Your task to perform on an android device: Add razer kraken to the cart on walmart, then select checkout. Image 0: 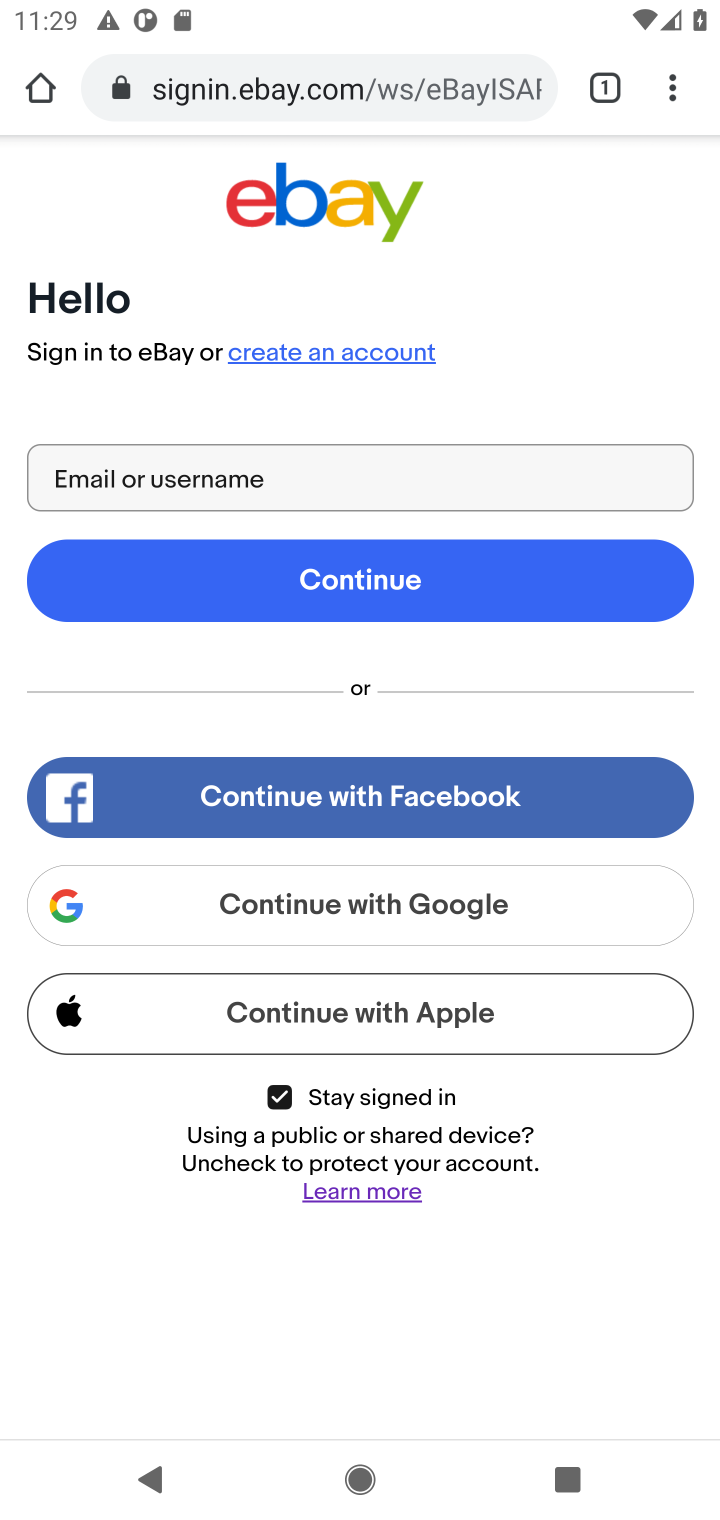
Step 0: press home button
Your task to perform on an android device: Add razer kraken to the cart on walmart, then select checkout. Image 1: 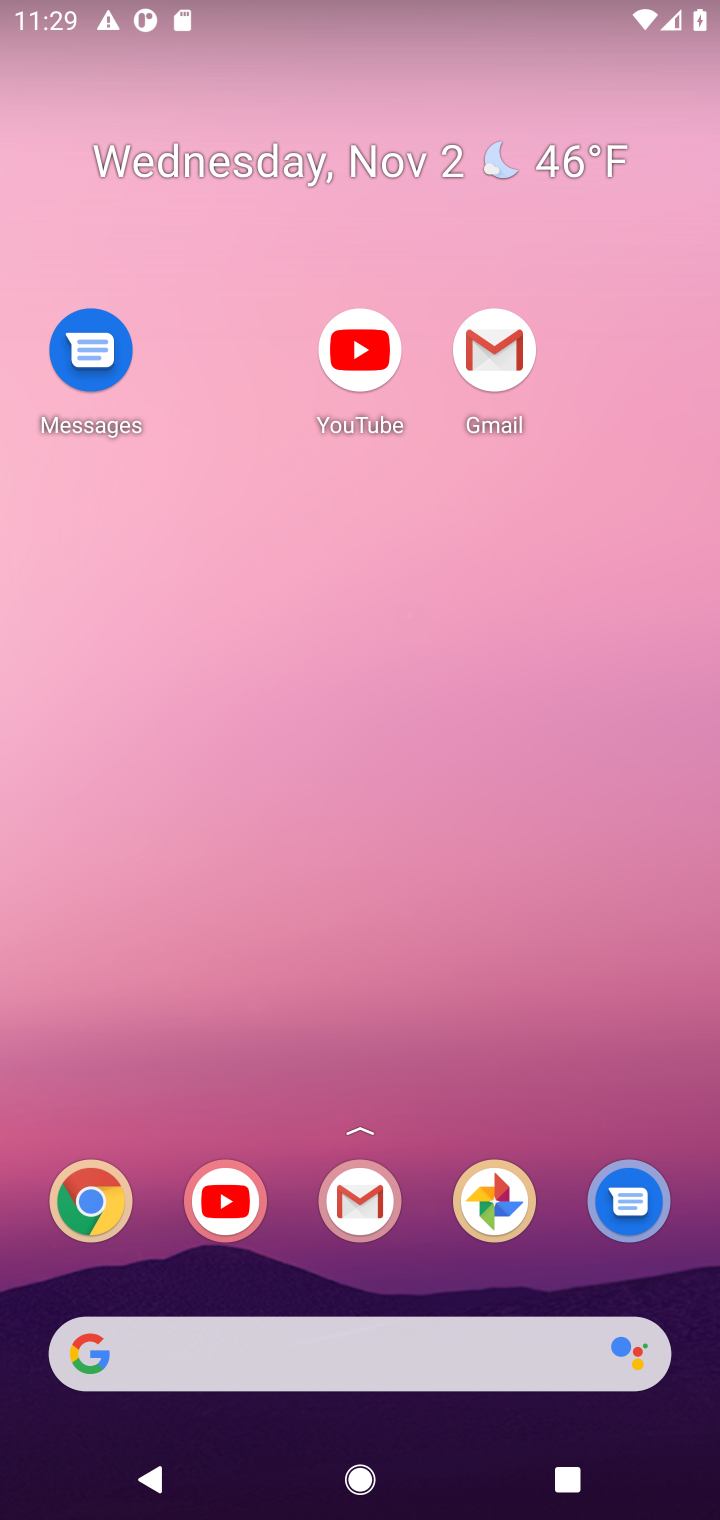
Step 1: drag from (411, 1307) to (464, 230)
Your task to perform on an android device: Add razer kraken to the cart on walmart, then select checkout. Image 2: 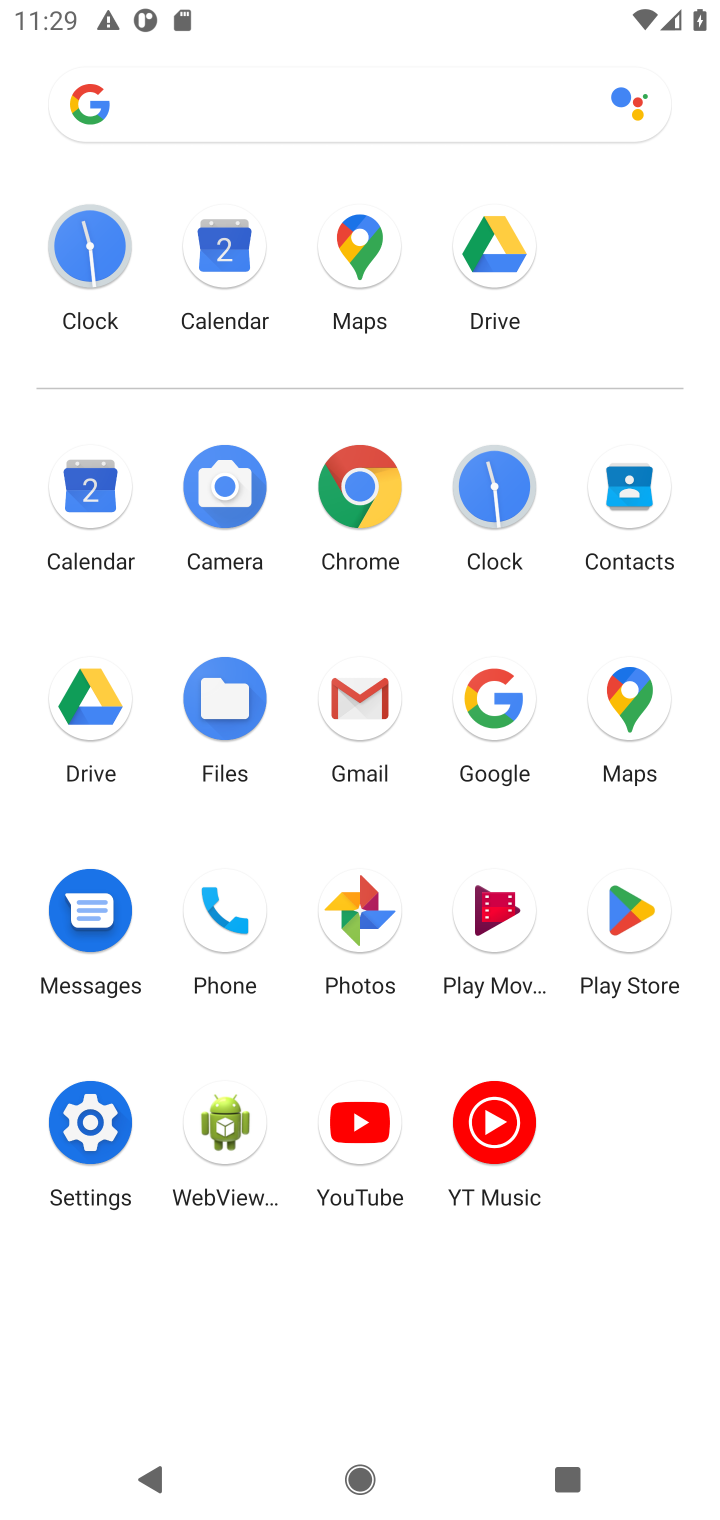
Step 2: click (366, 490)
Your task to perform on an android device: Add razer kraken to the cart on walmart, then select checkout. Image 3: 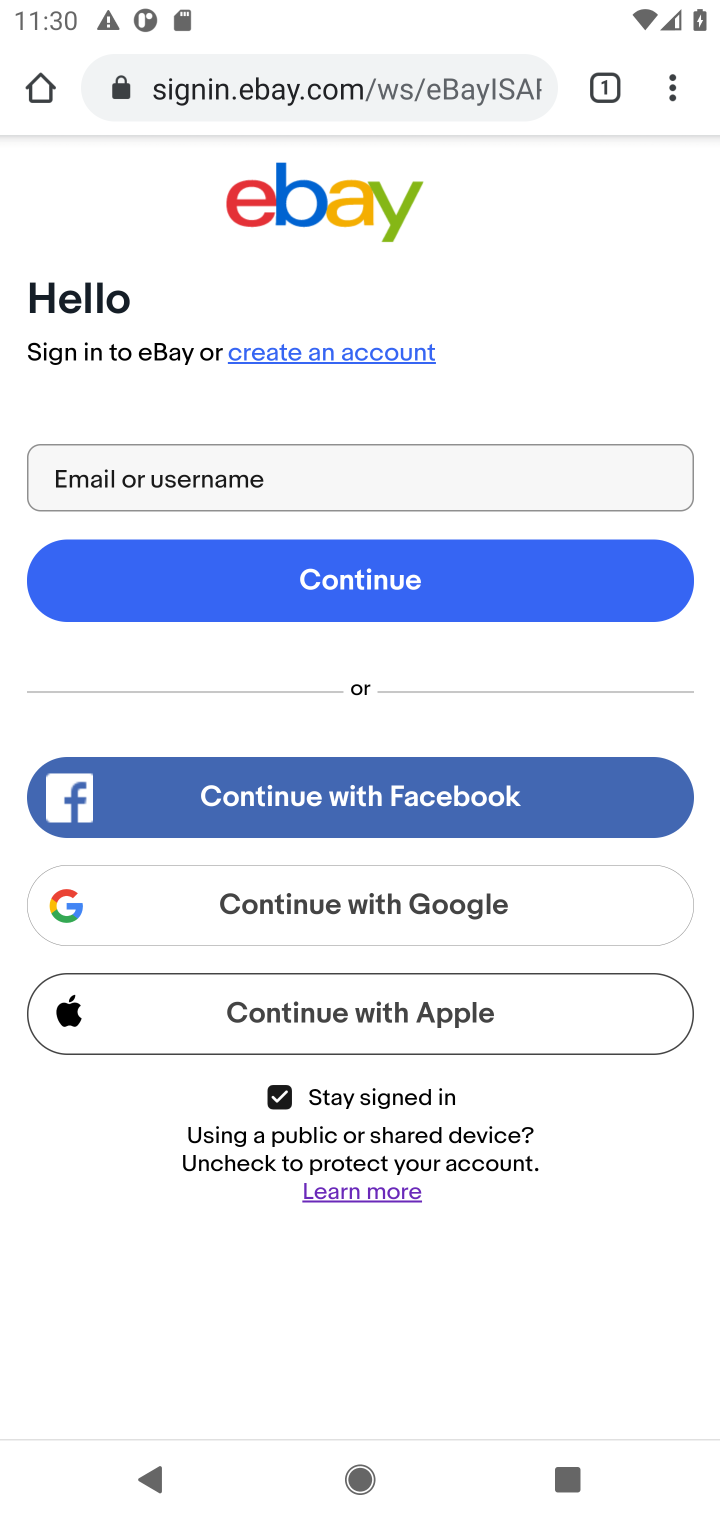
Step 3: click (437, 82)
Your task to perform on an android device: Add razer kraken to the cart on walmart, then select checkout. Image 4: 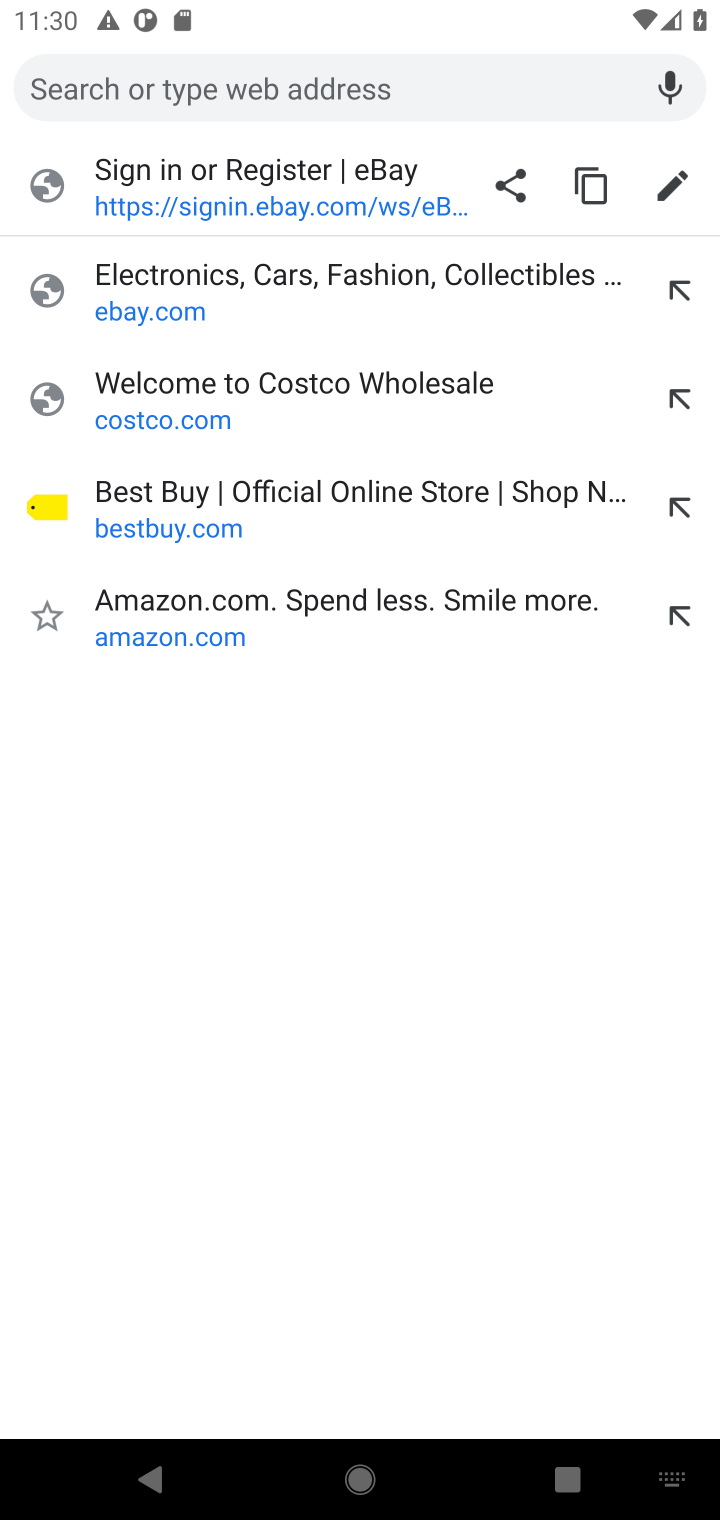
Step 4: type "walmart.com"
Your task to perform on an android device: Add razer kraken to the cart on walmart, then select checkout. Image 5: 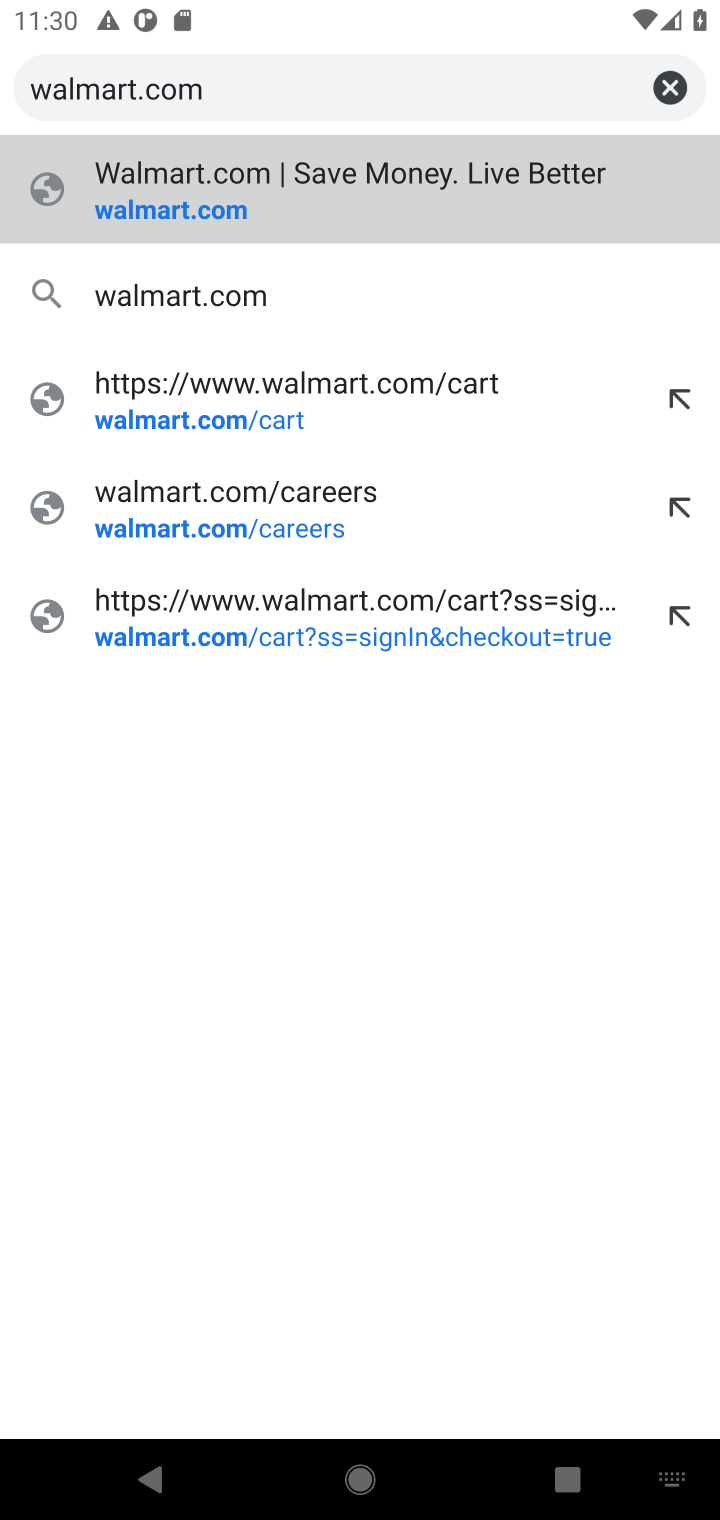
Step 5: press enter
Your task to perform on an android device: Add razer kraken to the cart on walmart, then select checkout. Image 6: 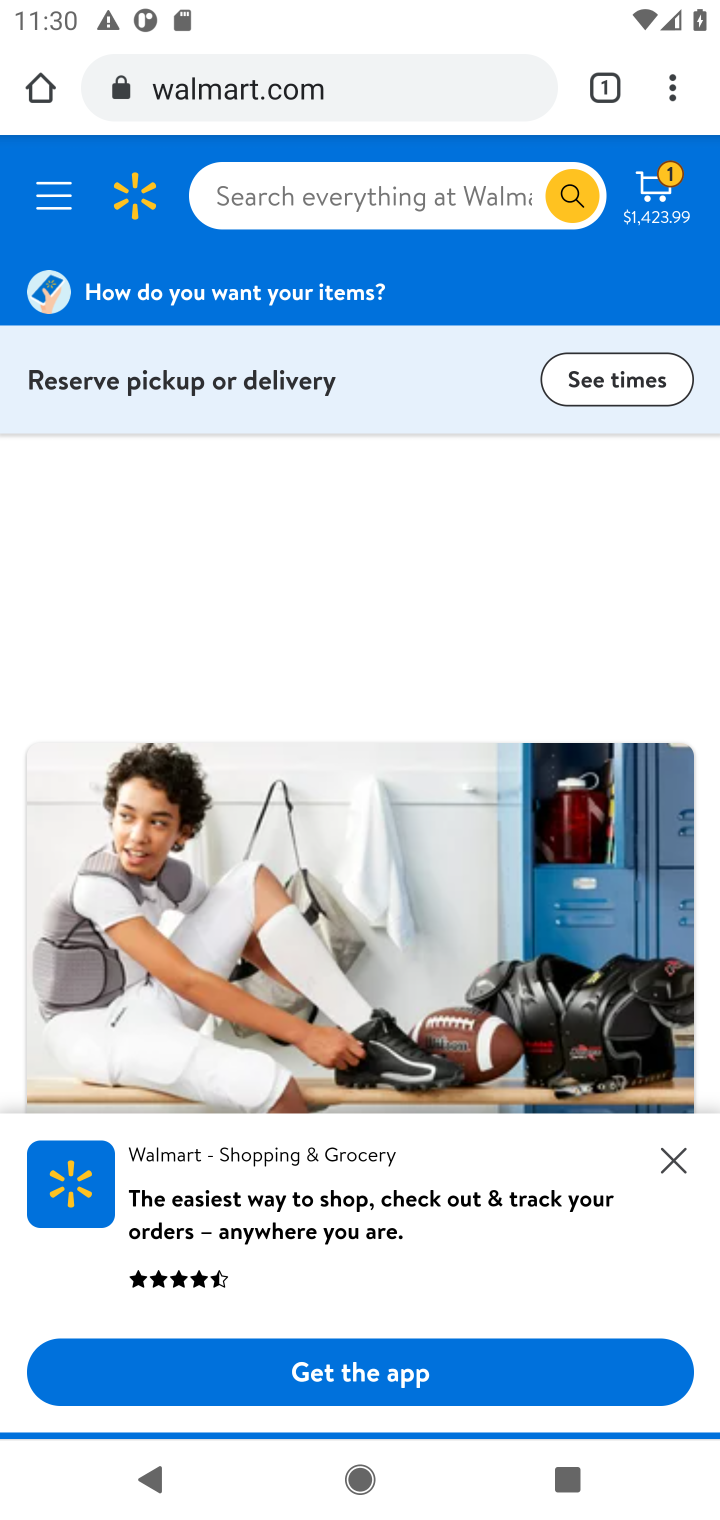
Step 6: click (391, 195)
Your task to perform on an android device: Add razer kraken to the cart on walmart, then select checkout. Image 7: 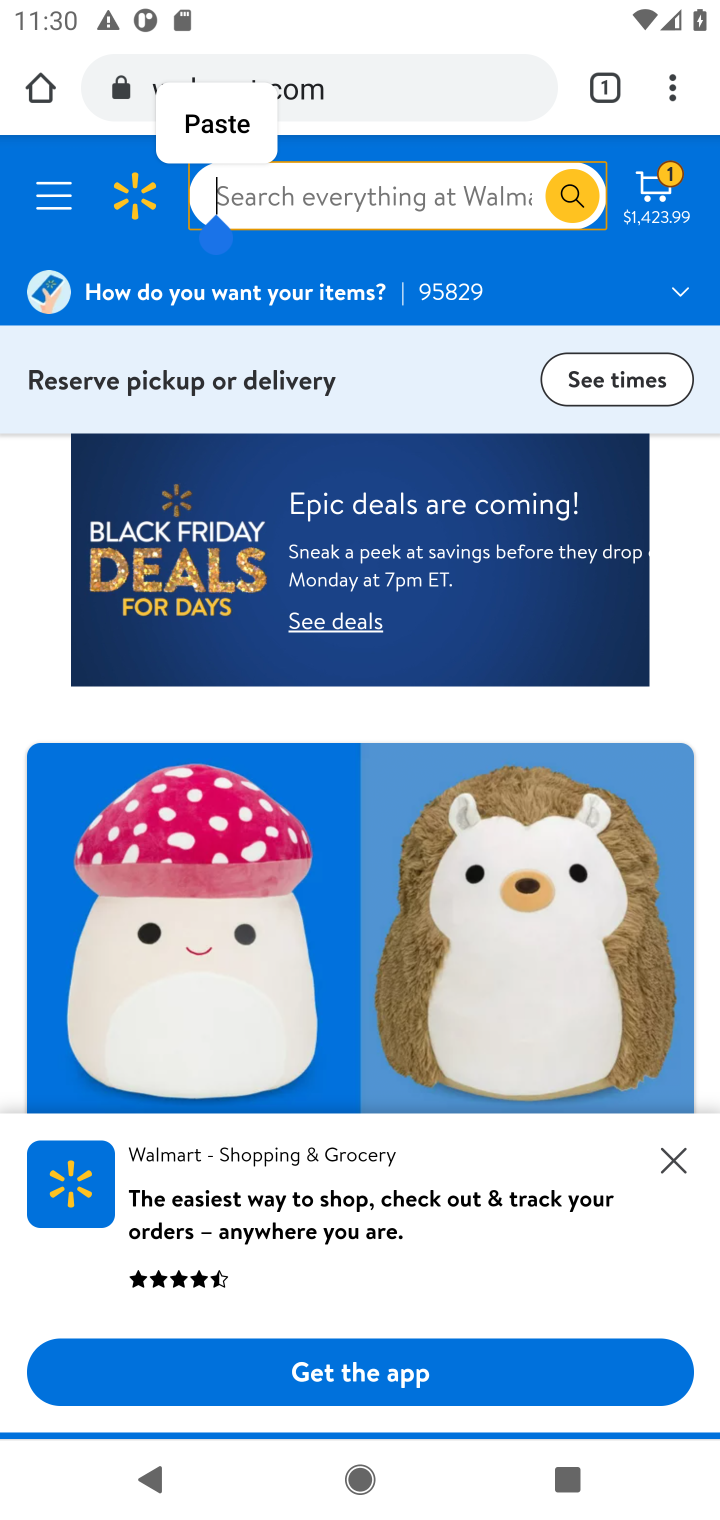
Step 7: type "razer kraken"
Your task to perform on an android device: Add razer kraken to the cart on walmart, then select checkout. Image 8: 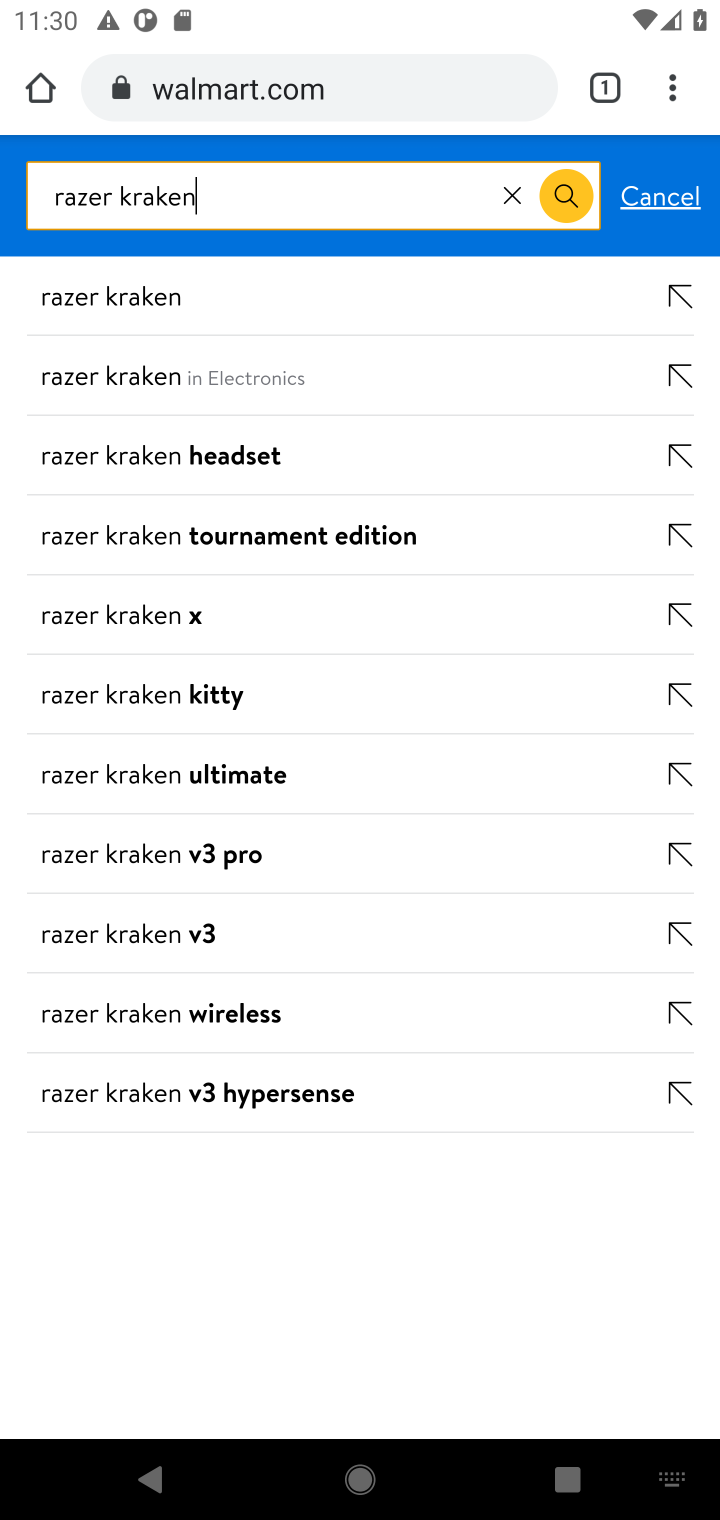
Step 8: press enter
Your task to perform on an android device: Add razer kraken to the cart on walmart, then select checkout. Image 9: 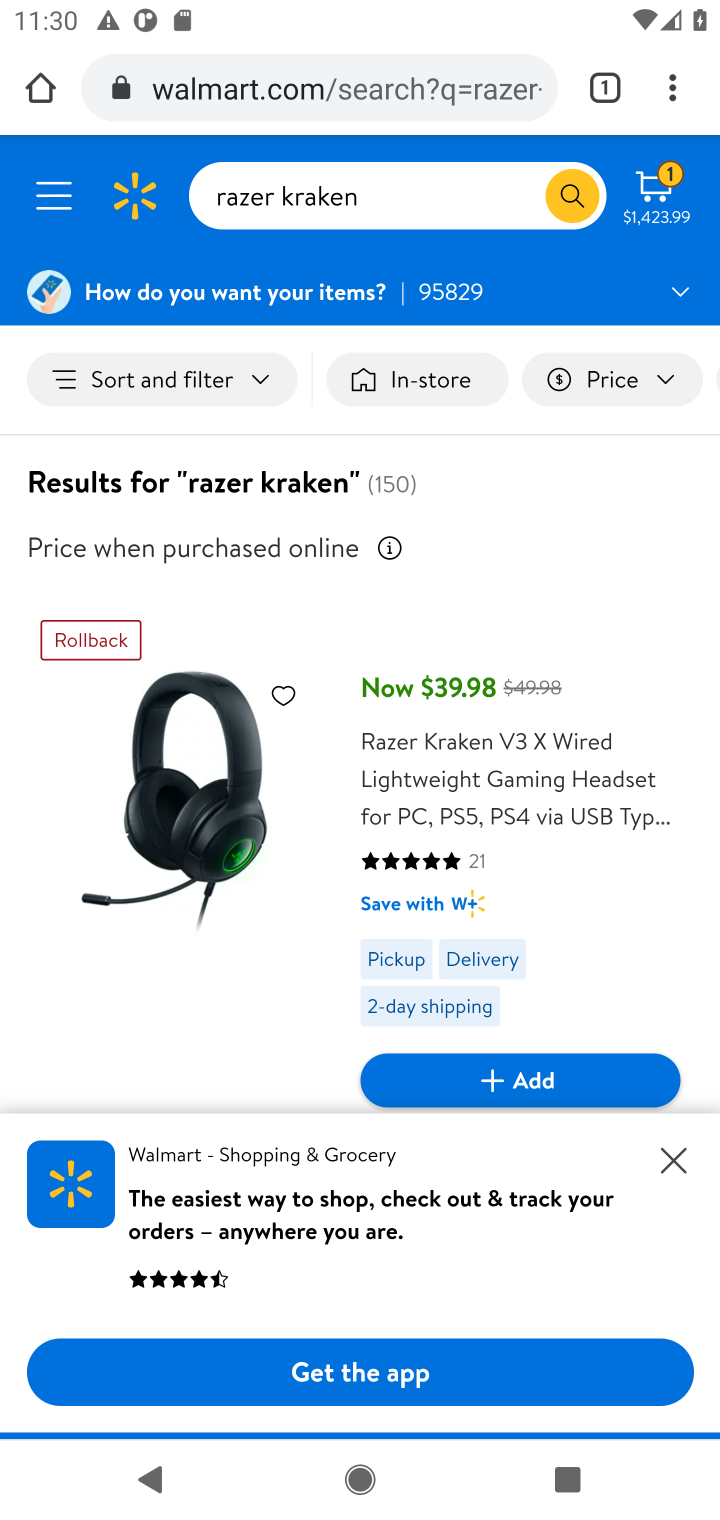
Step 9: click (602, 1070)
Your task to perform on an android device: Add razer kraken to the cart on walmart, then select checkout. Image 10: 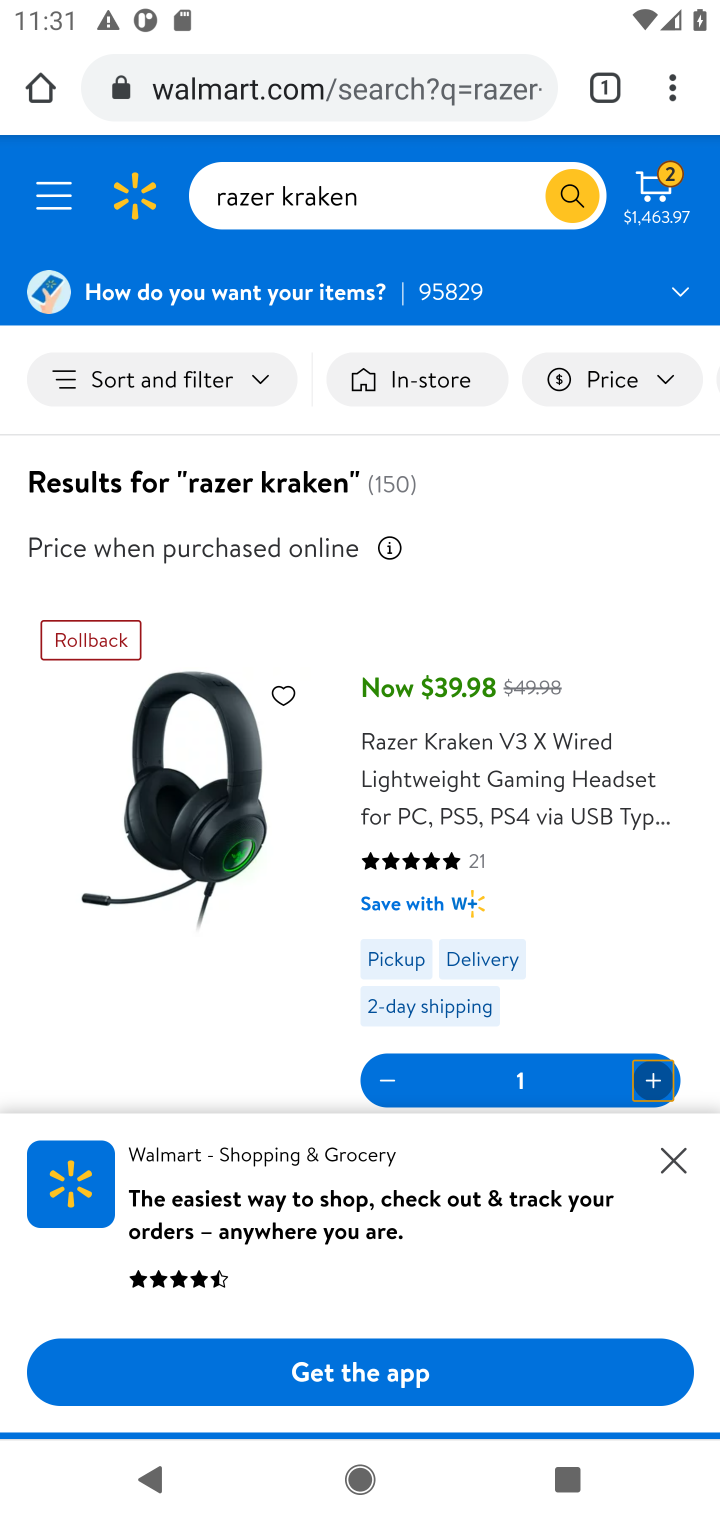
Step 10: click (650, 200)
Your task to perform on an android device: Add razer kraken to the cart on walmart, then select checkout. Image 11: 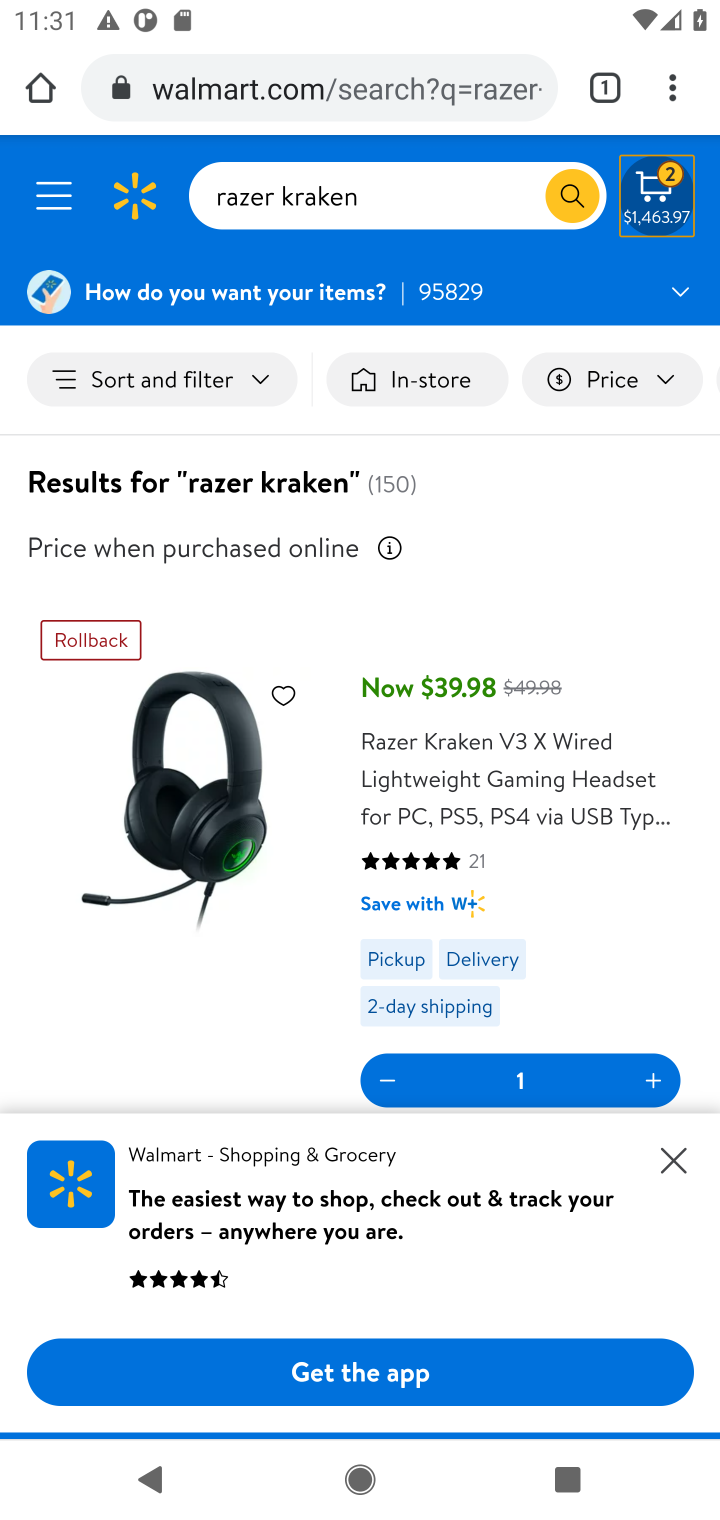
Step 11: click (659, 207)
Your task to perform on an android device: Add razer kraken to the cart on walmart, then select checkout. Image 12: 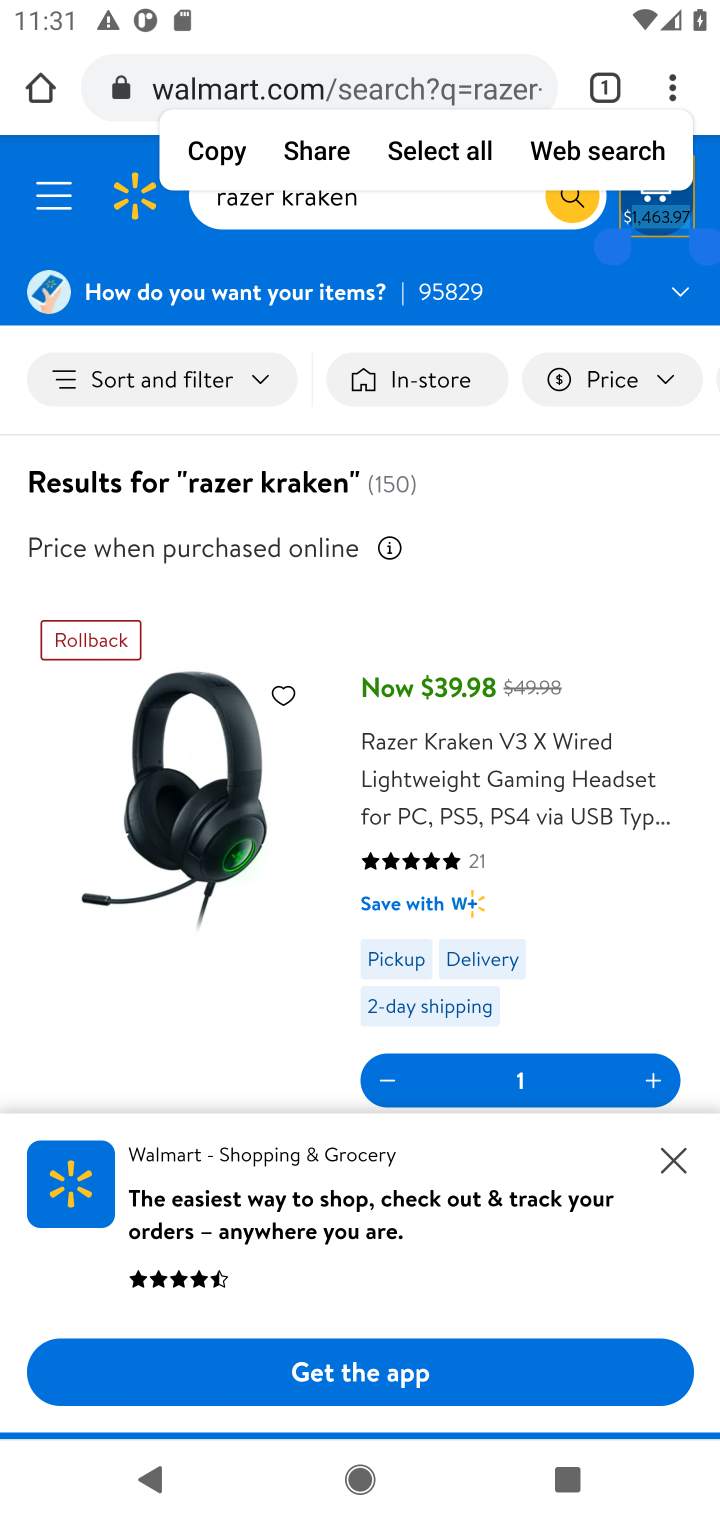
Step 12: click (659, 207)
Your task to perform on an android device: Add razer kraken to the cart on walmart, then select checkout. Image 13: 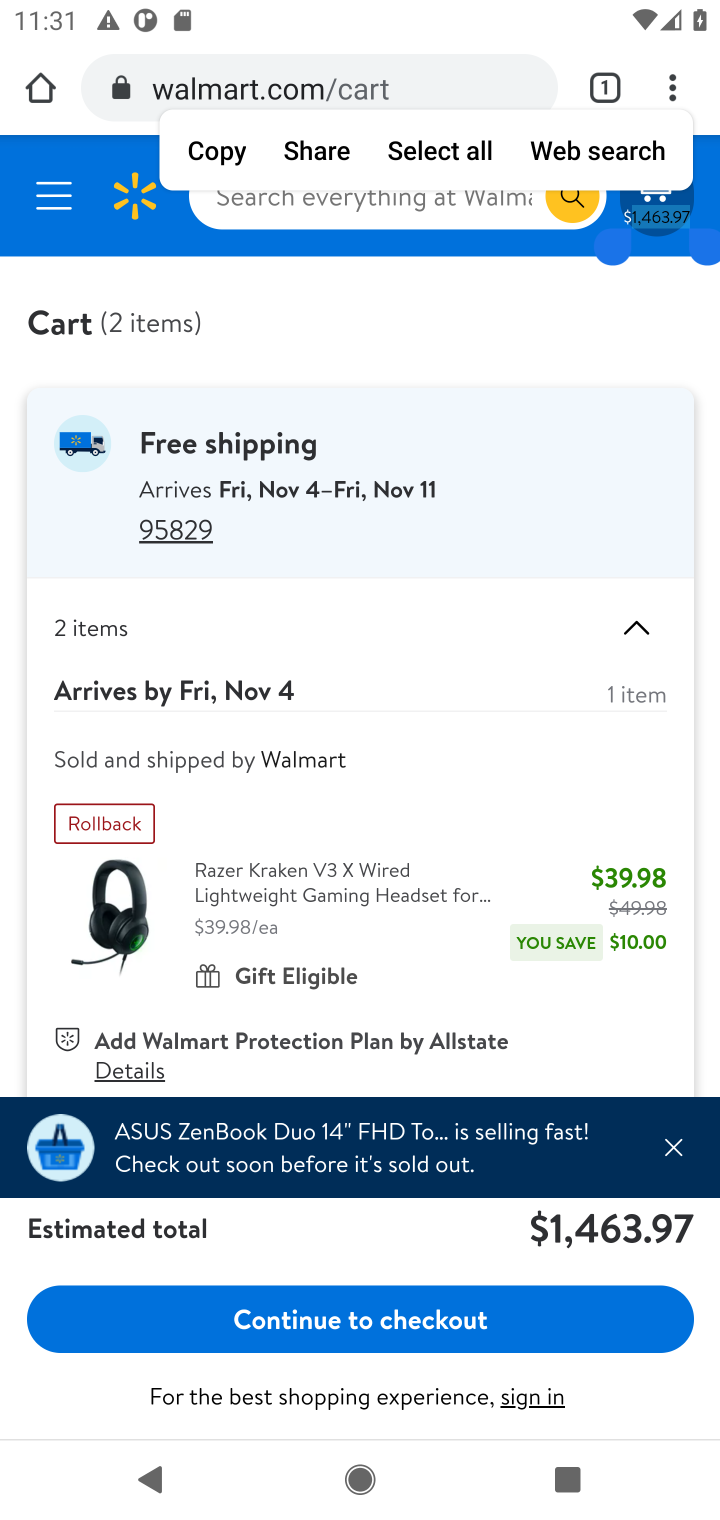
Step 13: click (455, 1335)
Your task to perform on an android device: Add razer kraken to the cart on walmart, then select checkout. Image 14: 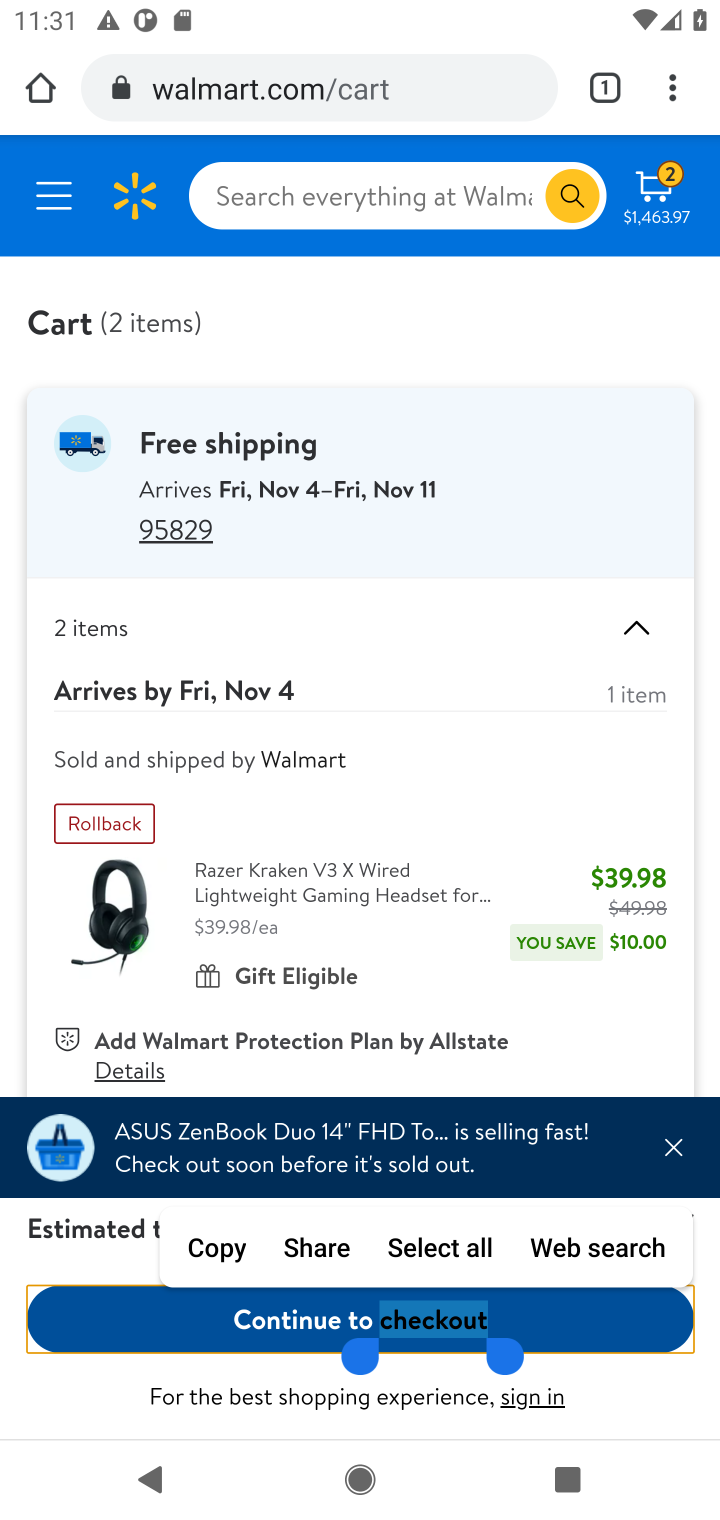
Step 14: click (278, 1331)
Your task to perform on an android device: Add razer kraken to the cart on walmart, then select checkout. Image 15: 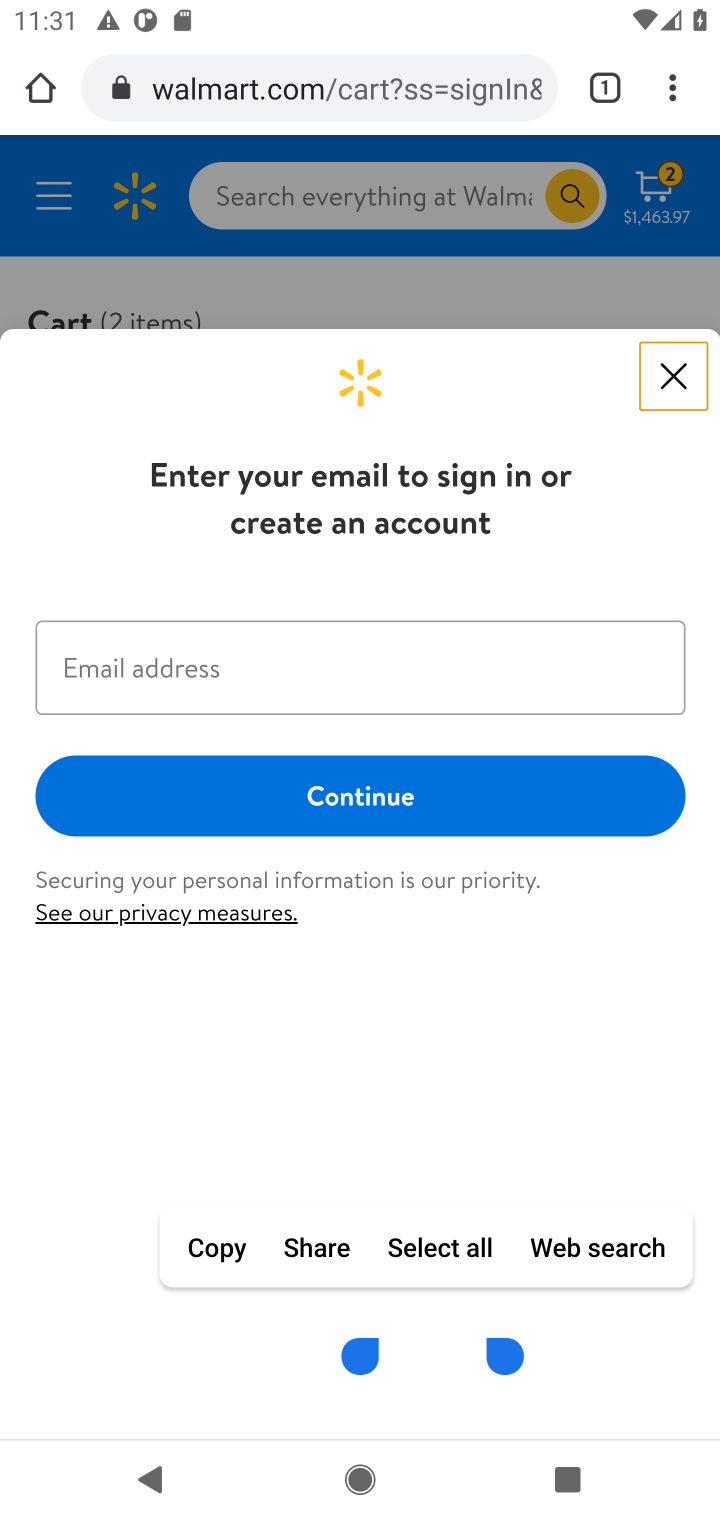
Step 15: task complete